Your task to perform on an android device: Open Google Maps and go to "Timeline" Image 0: 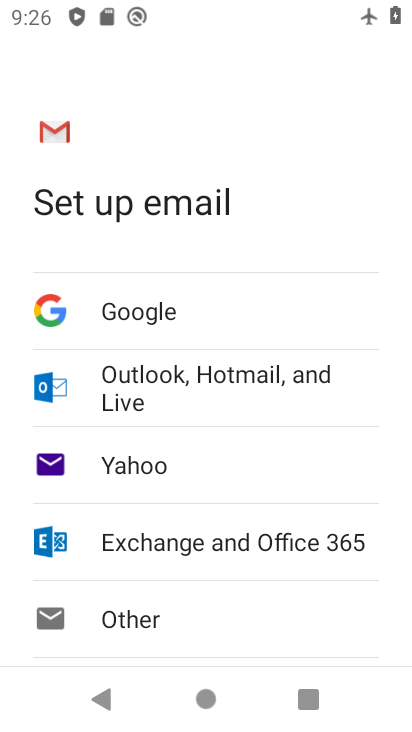
Step 0: press home button
Your task to perform on an android device: Open Google Maps and go to "Timeline" Image 1: 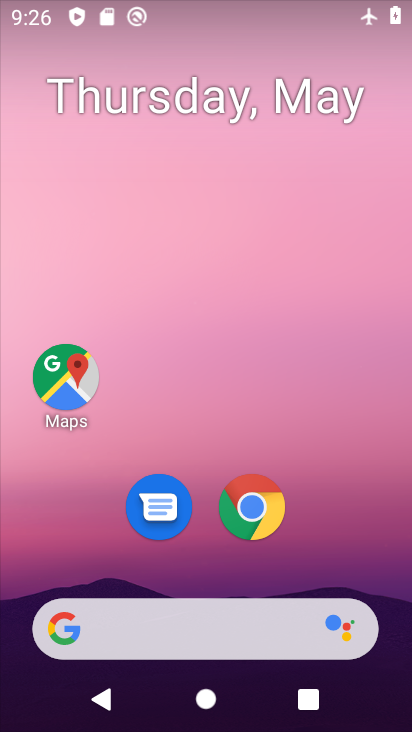
Step 1: drag from (242, 498) to (241, 100)
Your task to perform on an android device: Open Google Maps and go to "Timeline" Image 2: 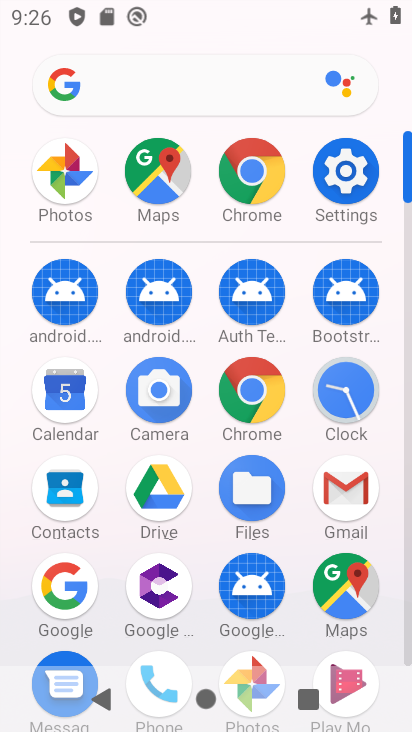
Step 2: click (339, 581)
Your task to perform on an android device: Open Google Maps and go to "Timeline" Image 3: 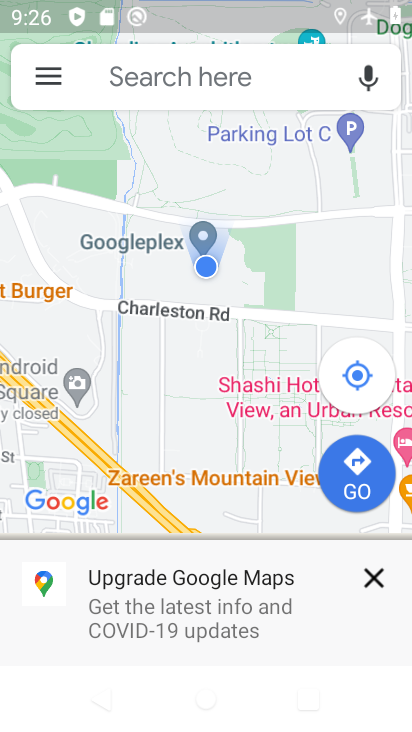
Step 3: click (373, 585)
Your task to perform on an android device: Open Google Maps and go to "Timeline" Image 4: 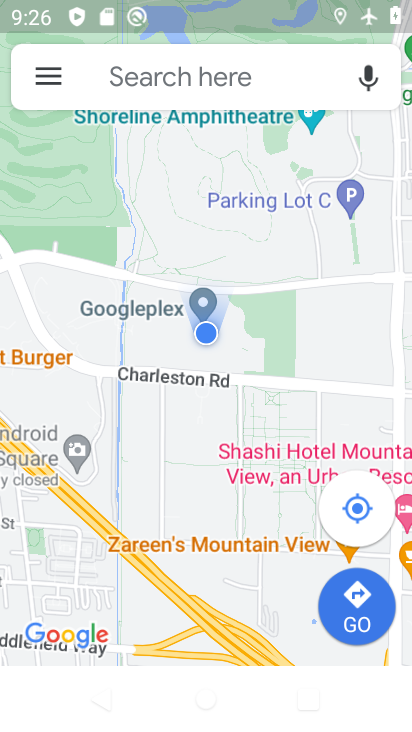
Step 4: click (49, 79)
Your task to perform on an android device: Open Google Maps and go to "Timeline" Image 5: 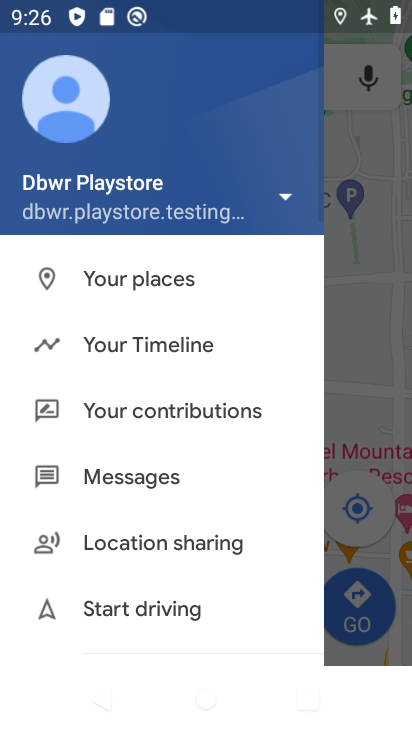
Step 5: click (156, 350)
Your task to perform on an android device: Open Google Maps and go to "Timeline" Image 6: 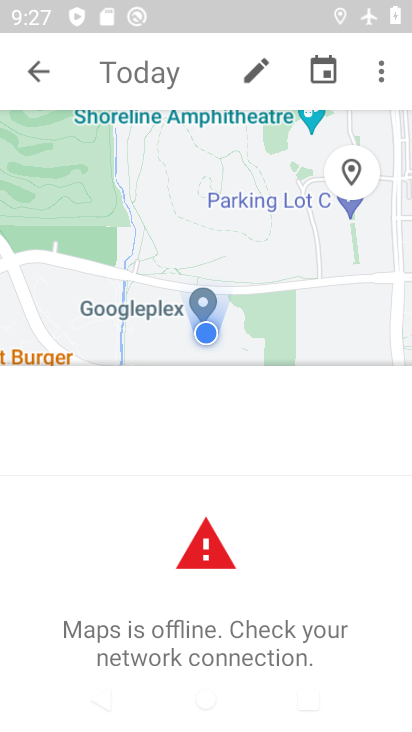
Step 6: task complete